Your task to perform on an android device: Open Chrome and go to the settings page Image 0: 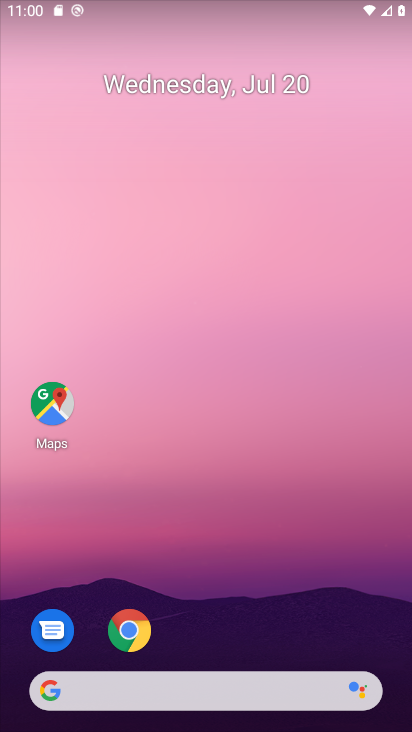
Step 0: drag from (255, 662) to (243, 366)
Your task to perform on an android device: Open Chrome and go to the settings page Image 1: 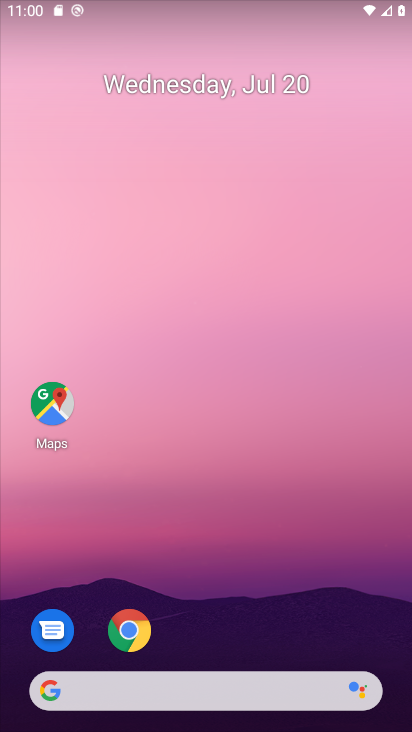
Step 1: drag from (195, 350) to (179, 184)
Your task to perform on an android device: Open Chrome and go to the settings page Image 2: 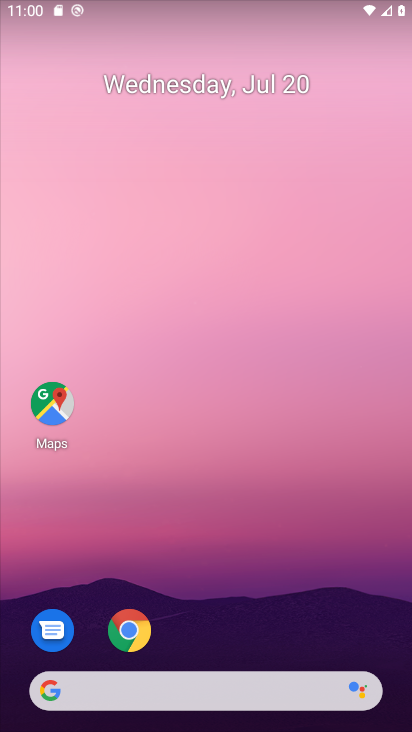
Step 2: drag from (178, 628) to (179, 222)
Your task to perform on an android device: Open Chrome and go to the settings page Image 3: 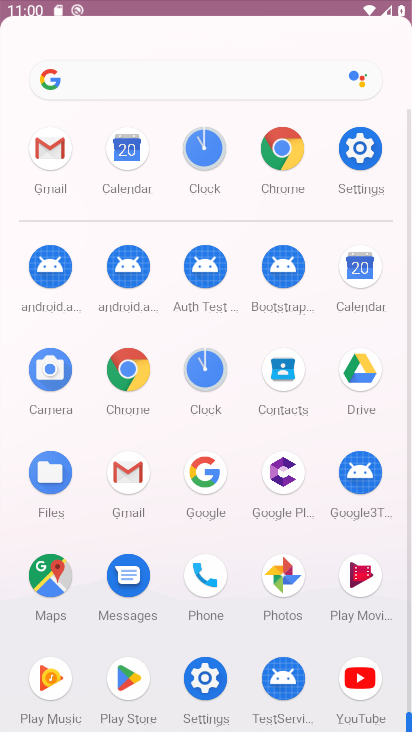
Step 3: drag from (249, 523) to (261, 130)
Your task to perform on an android device: Open Chrome and go to the settings page Image 4: 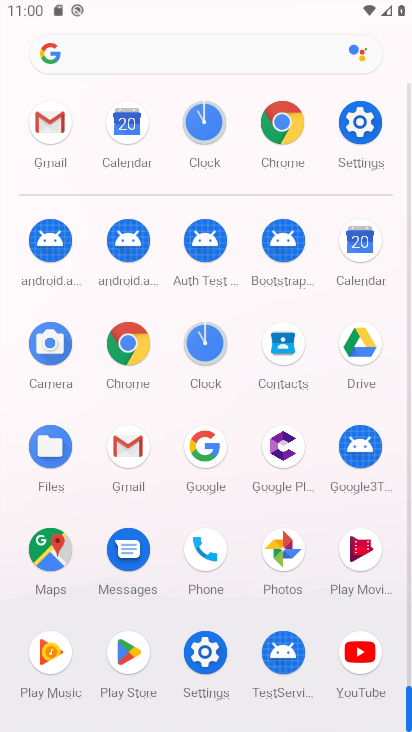
Step 4: click (288, 119)
Your task to perform on an android device: Open Chrome and go to the settings page Image 5: 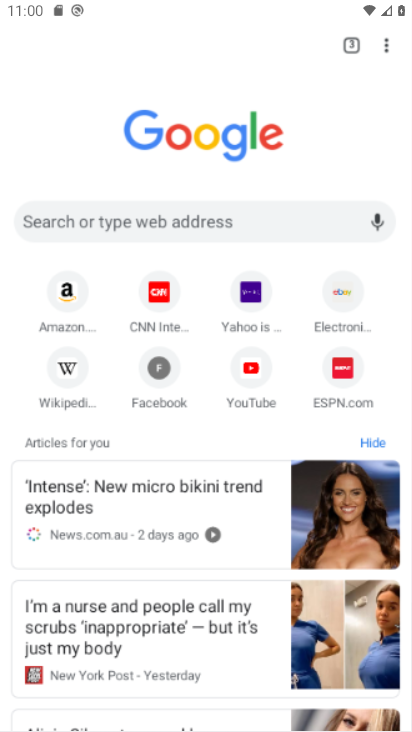
Step 5: click (288, 114)
Your task to perform on an android device: Open Chrome and go to the settings page Image 6: 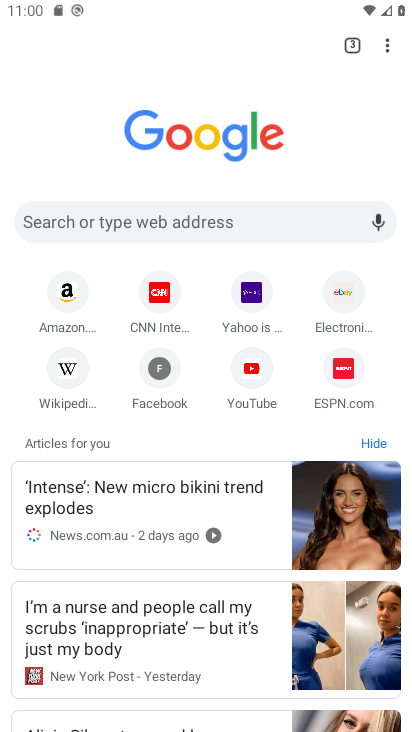
Step 6: drag from (381, 50) to (240, 384)
Your task to perform on an android device: Open Chrome and go to the settings page Image 7: 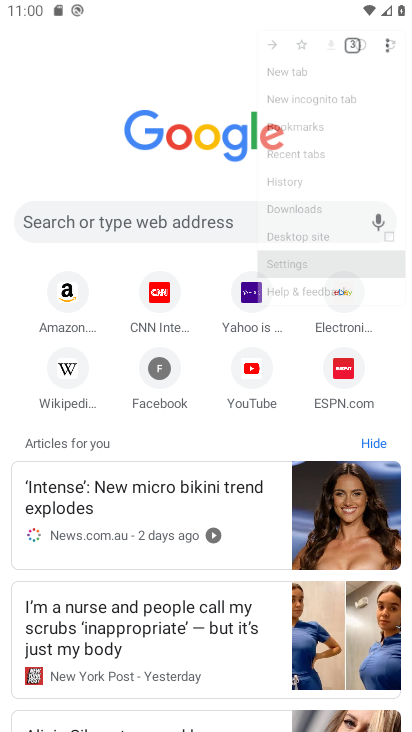
Step 7: click (238, 388)
Your task to perform on an android device: Open Chrome and go to the settings page Image 8: 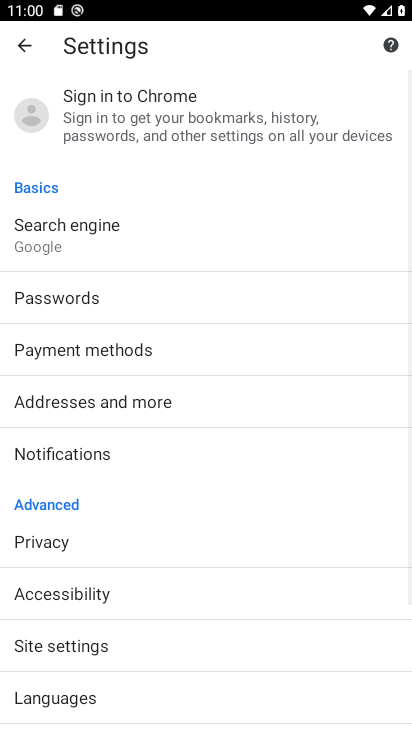
Step 8: task complete